Your task to perform on an android device: Open Chrome and go to settings Image 0: 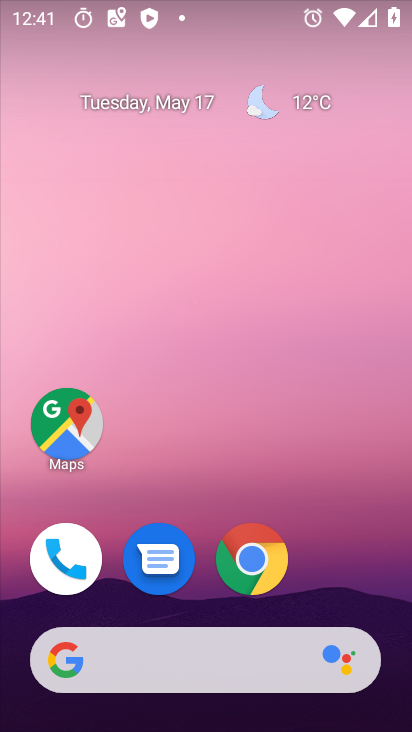
Step 0: click (255, 566)
Your task to perform on an android device: Open Chrome and go to settings Image 1: 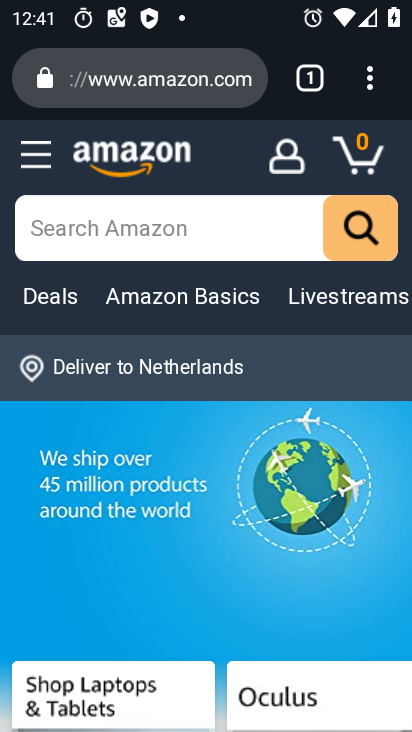
Step 1: task complete